Your task to perform on an android device: Go to sound settings Image 0: 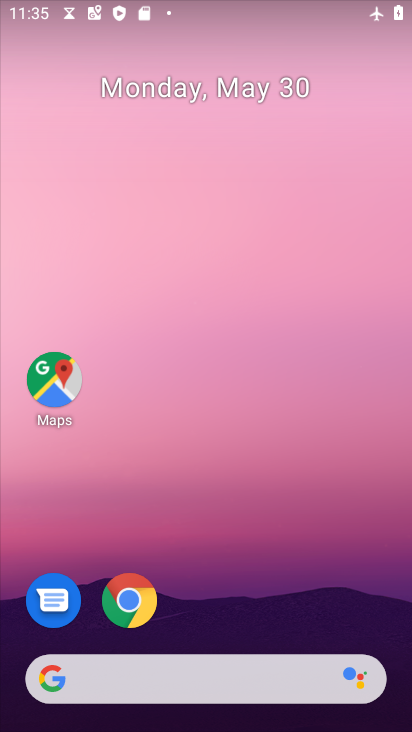
Step 0: drag from (225, 728) to (226, 16)
Your task to perform on an android device: Go to sound settings Image 1: 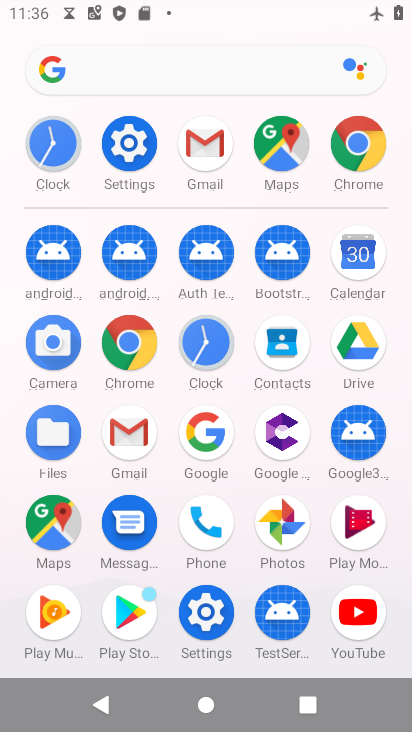
Step 1: click (138, 147)
Your task to perform on an android device: Go to sound settings Image 2: 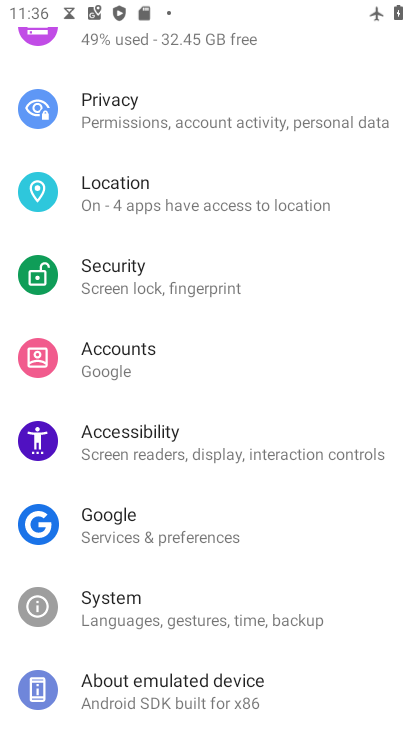
Step 2: drag from (245, 96) to (238, 575)
Your task to perform on an android device: Go to sound settings Image 3: 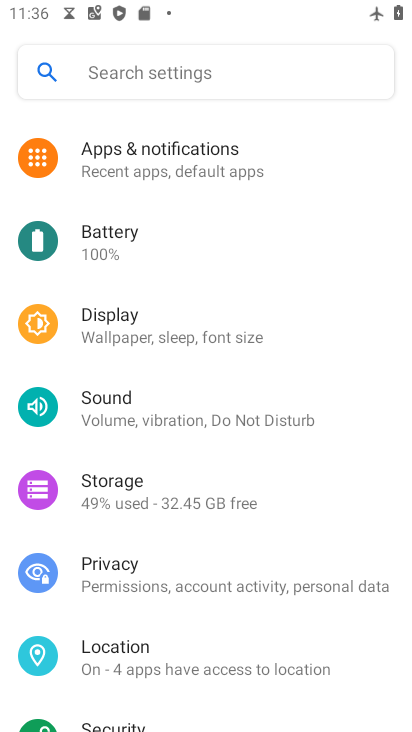
Step 3: click (126, 402)
Your task to perform on an android device: Go to sound settings Image 4: 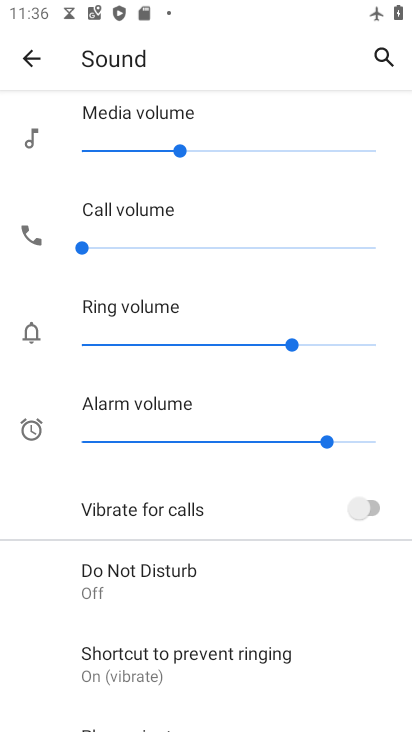
Step 4: task complete